Your task to perform on an android device: snooze an email in the gmail app Image 0: 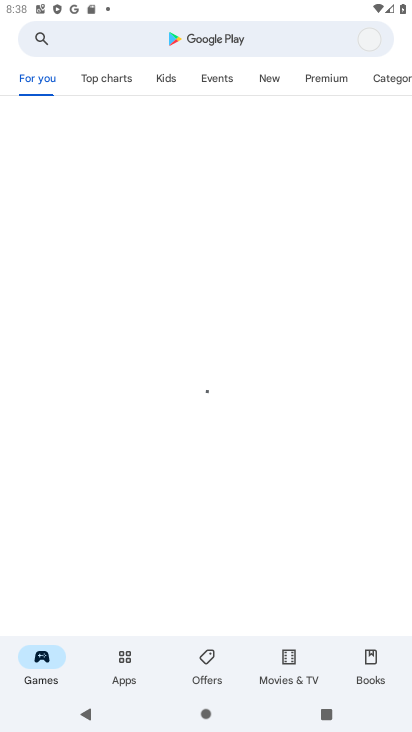
Step 0: press home button
Your task to perform on an android device: snooze an email in the gmail app Image 1: 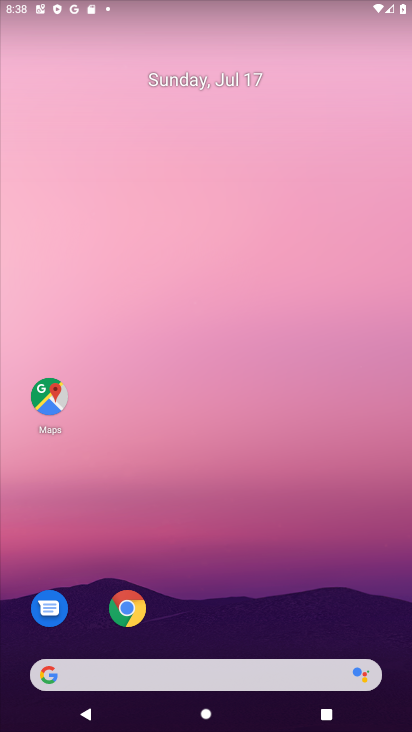
Step 1: drag from (225, 600) to (246, 379)
Your task to perform on an android device: snooze an email in the gmail app Image 2: 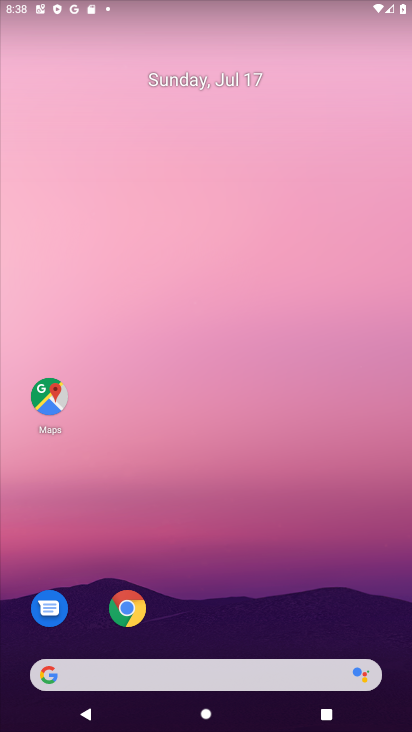
Step 2: drag from (182, 662) to (268, 66)
Your task to perform on an android device: snooze an email in the gmail app Image 3: 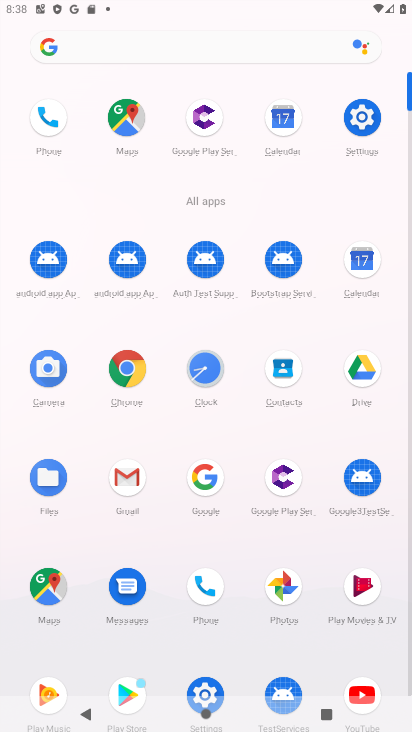
Step 3: click (121, 476)
Your task to perform on an android device: snooze an email in the gmail app Image 4: 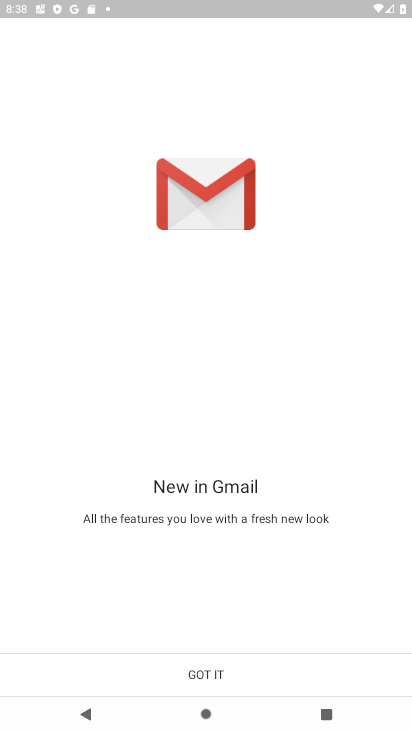
Step 4: click (196, 674)
Your task to perform on an android device: snooze an email in the gmail app Image 5: 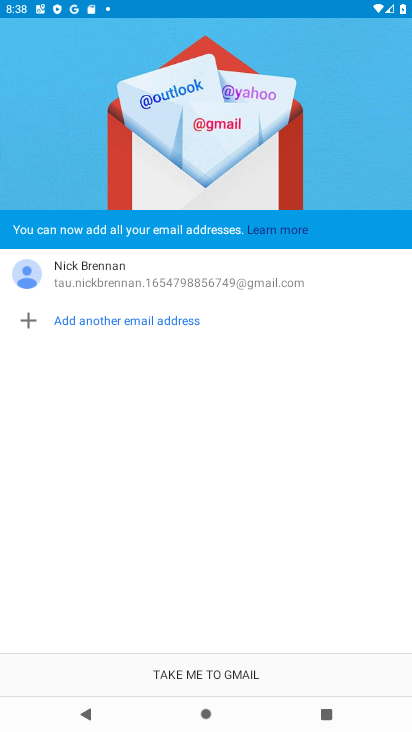
Step 5: click (196, 674)
Your task to perform on an android device: snooze an email in the gmail app Image 6: 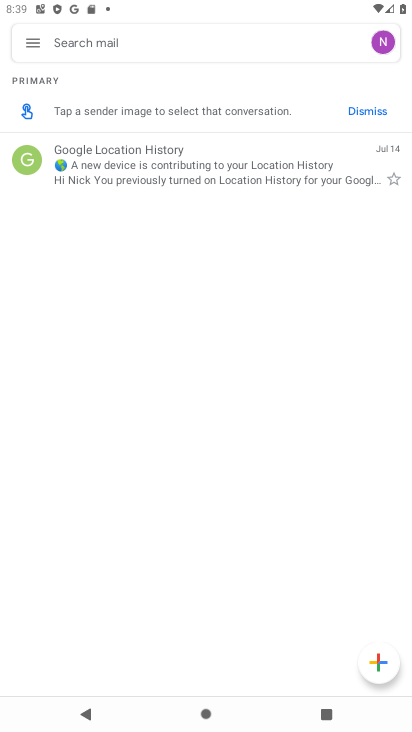
Step 6: click (205, 170)
Your task to perform on an android device: snooze an email in the gmail app Image 7: 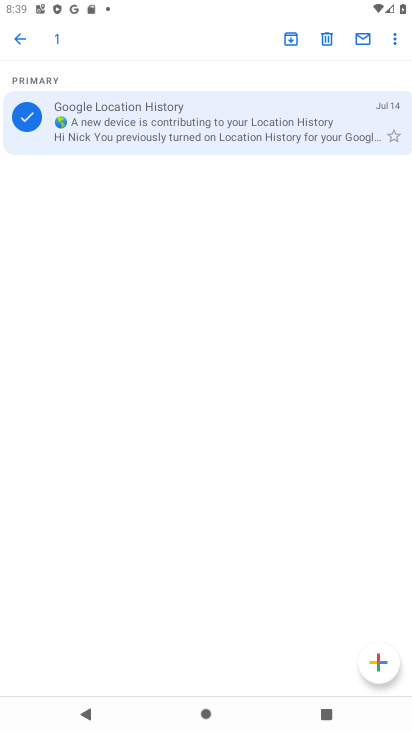
Step 7: click (394, 44)
Your task to perform on an android device: snooze an email in the gmail app Image 8: 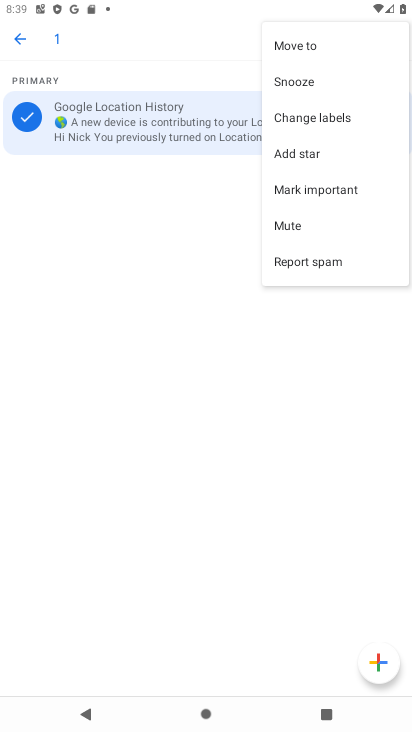
Step 8: click (287, 76)
Your task to perform on an android device: snooze an email in the gmail app Image 9: 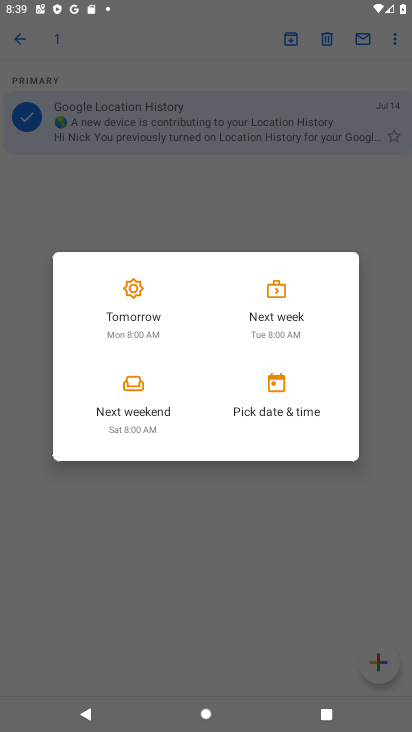
Step 9: click (283, 319)
Your task to perform on an android device: snooze an email in the gmail app Image 10: 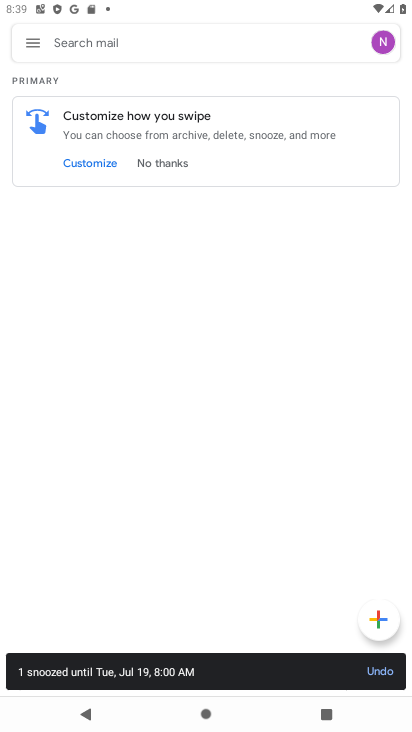
Step 10: task complete